Your task to perform on an android device: Search for razer kraken on costco, select the first entry, add it to the cart, then select checkout. Image 0: 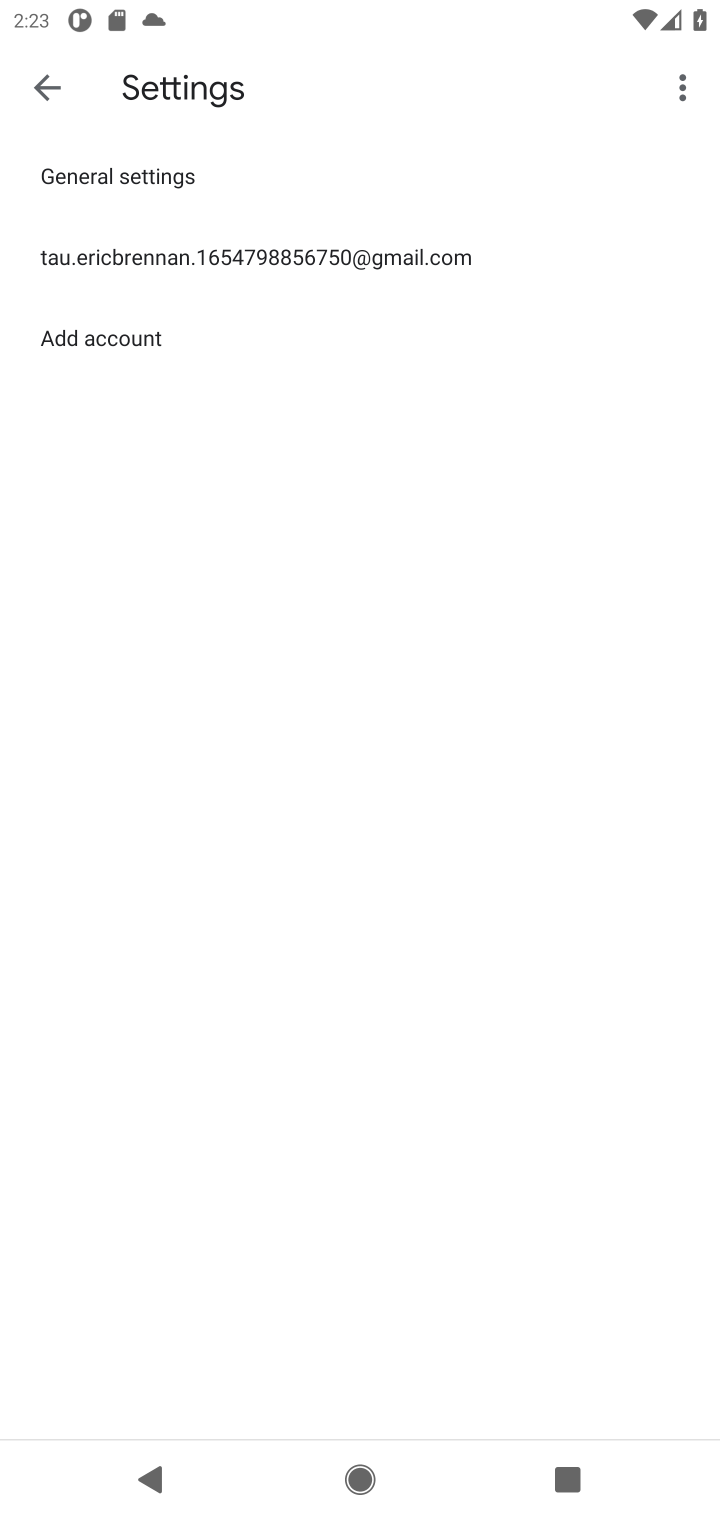
Step 0: press home button
Your task to perform on an android device: Search for razer kraken on costco, select the first entry, add it to the cart, then select checkout. Image 1: 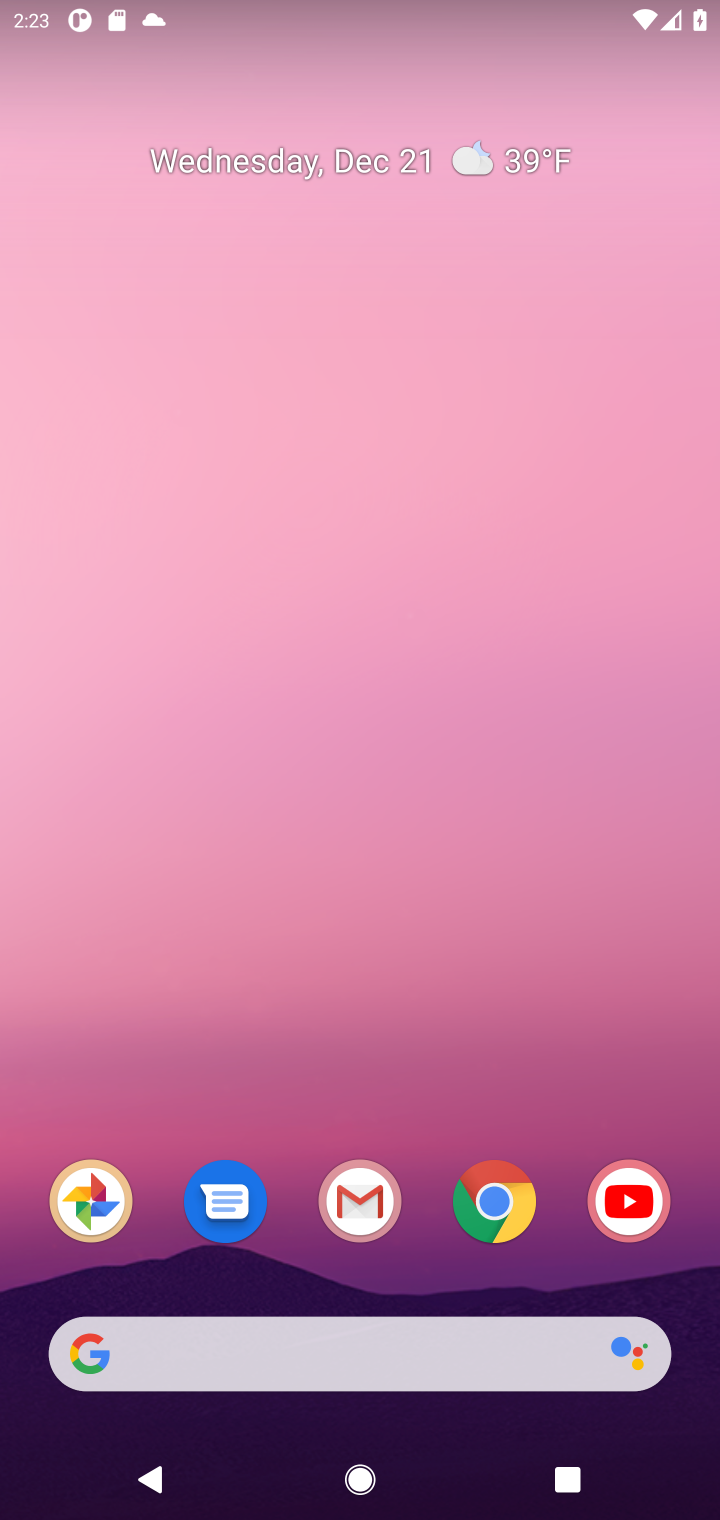
Step 1: click (499, 1209)
Your task to perform on an android device: Search for razer kraken on costco, select the first entry, add it to the cart, then select checkout. Image 2: 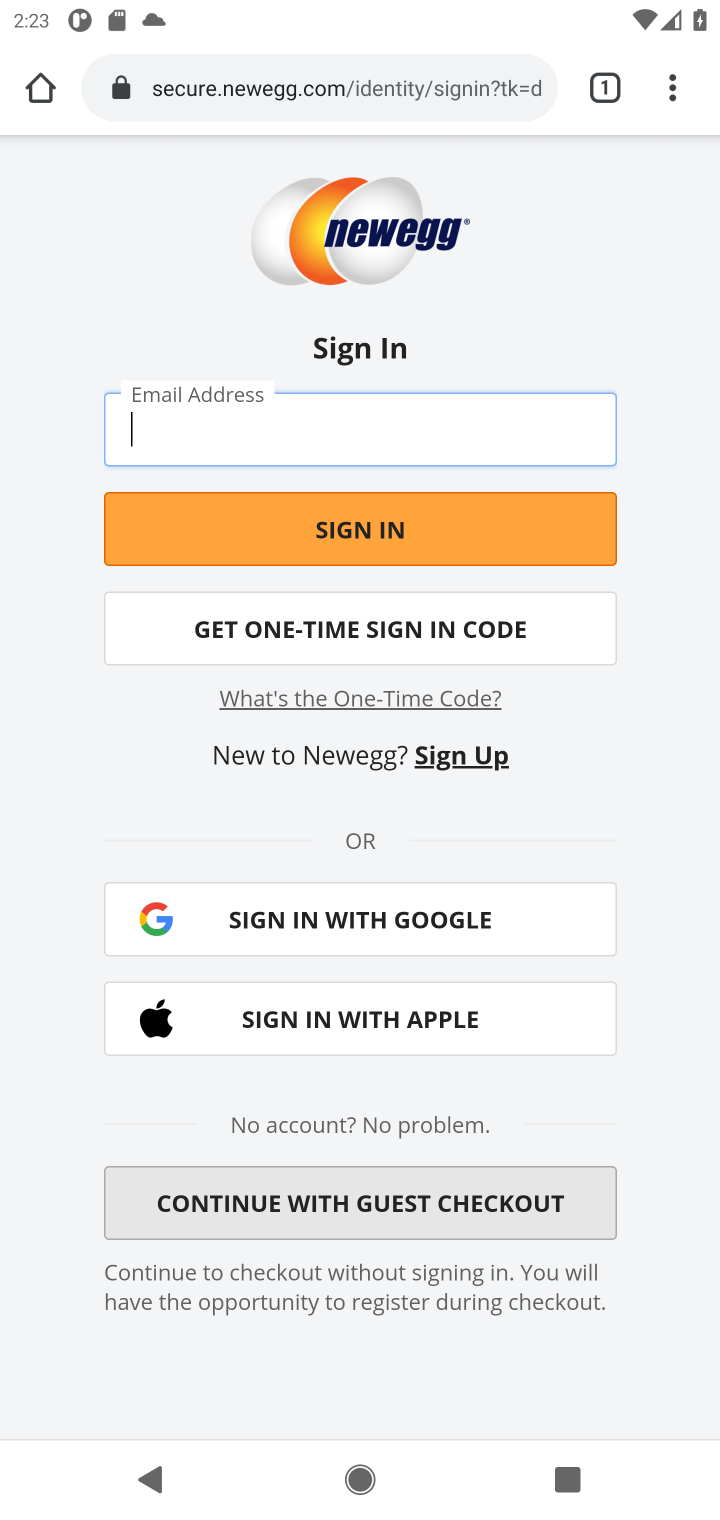
Step 2: click (274, 86)
Your task to perform on an android device: Search for razer kraken on costco, select the first entry, add it to the cart, then select checkout. Image 3: 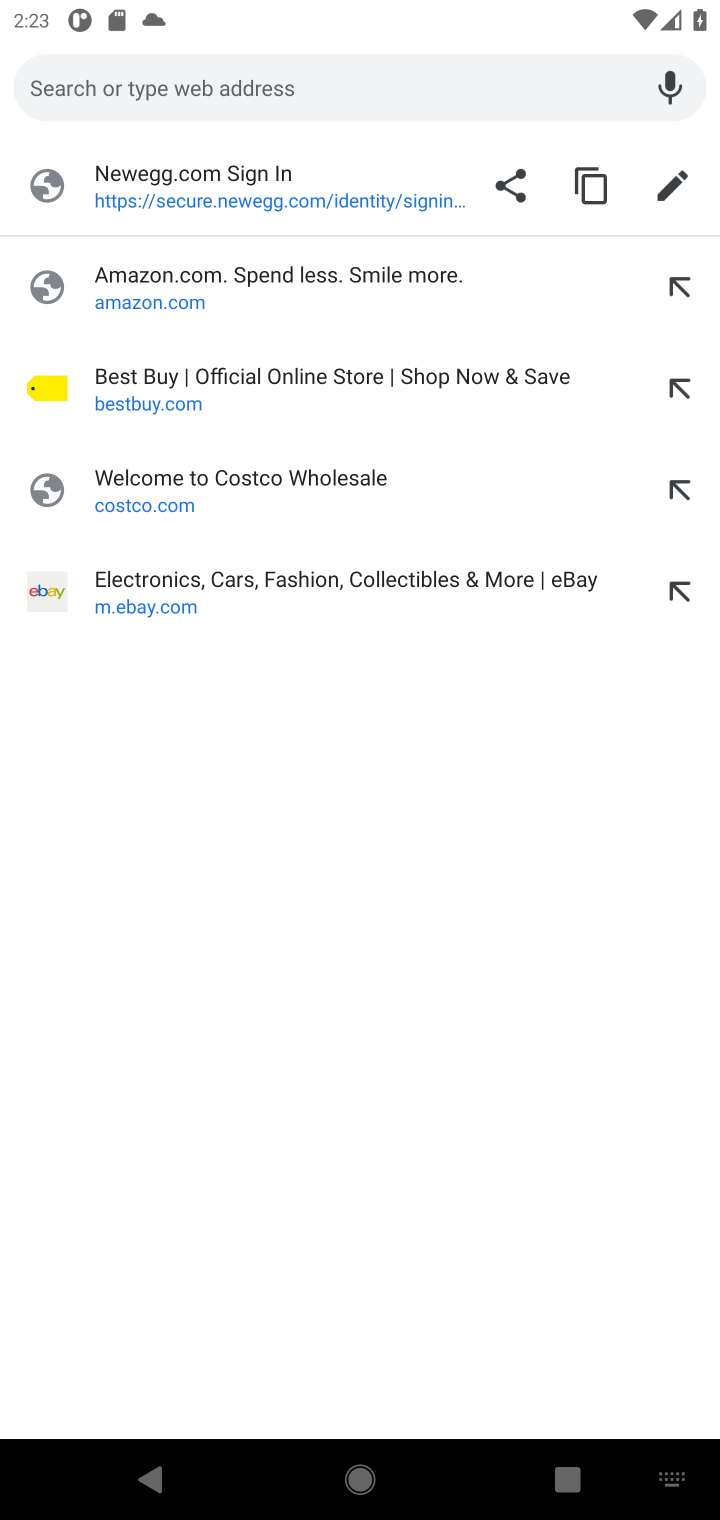
Step 3: click (145, 483)
Your task to perform on an android device: Search for razer kraken on costco, select the first entry, add it to the cart, then select checkout. Image 4: 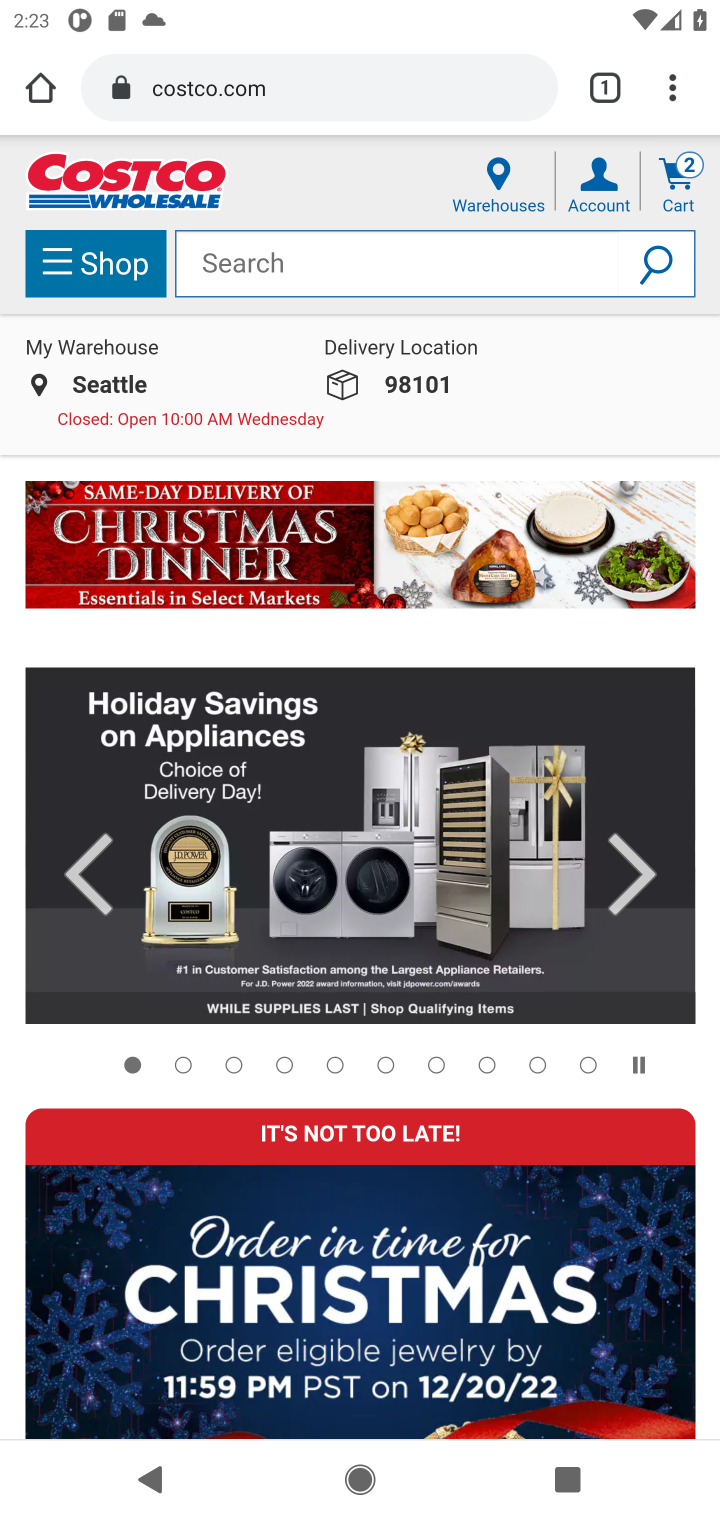
Step 4: click (255, 251)
Your task to perform on an android device: Search for razer kraken on costco, select the first entry, add it to the cart, then select checkout. Image 5: 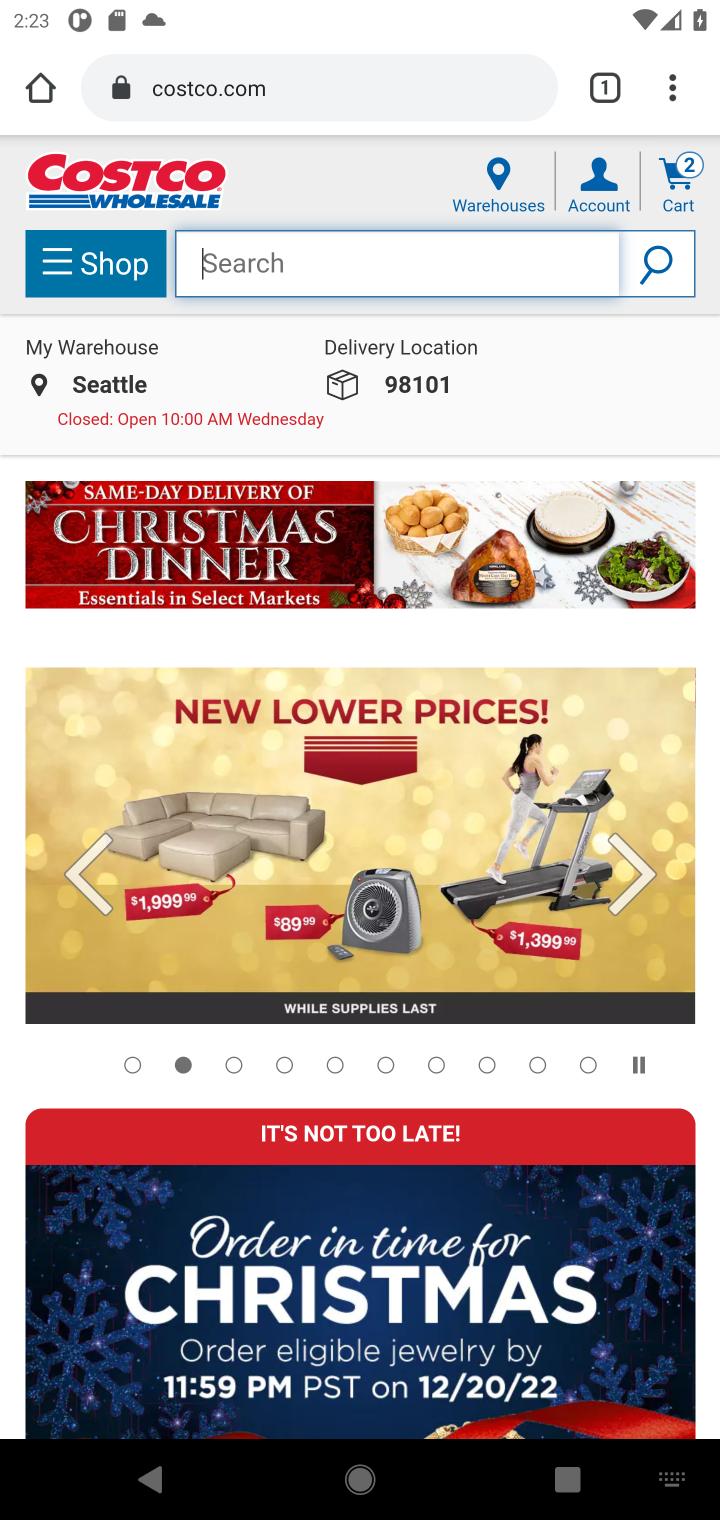
Step 5: type "razer kraken"
Your task to perform on an android device: Search for razer kraken on costco, select the first entry, add it to the cart, then select checkout. Image 6: 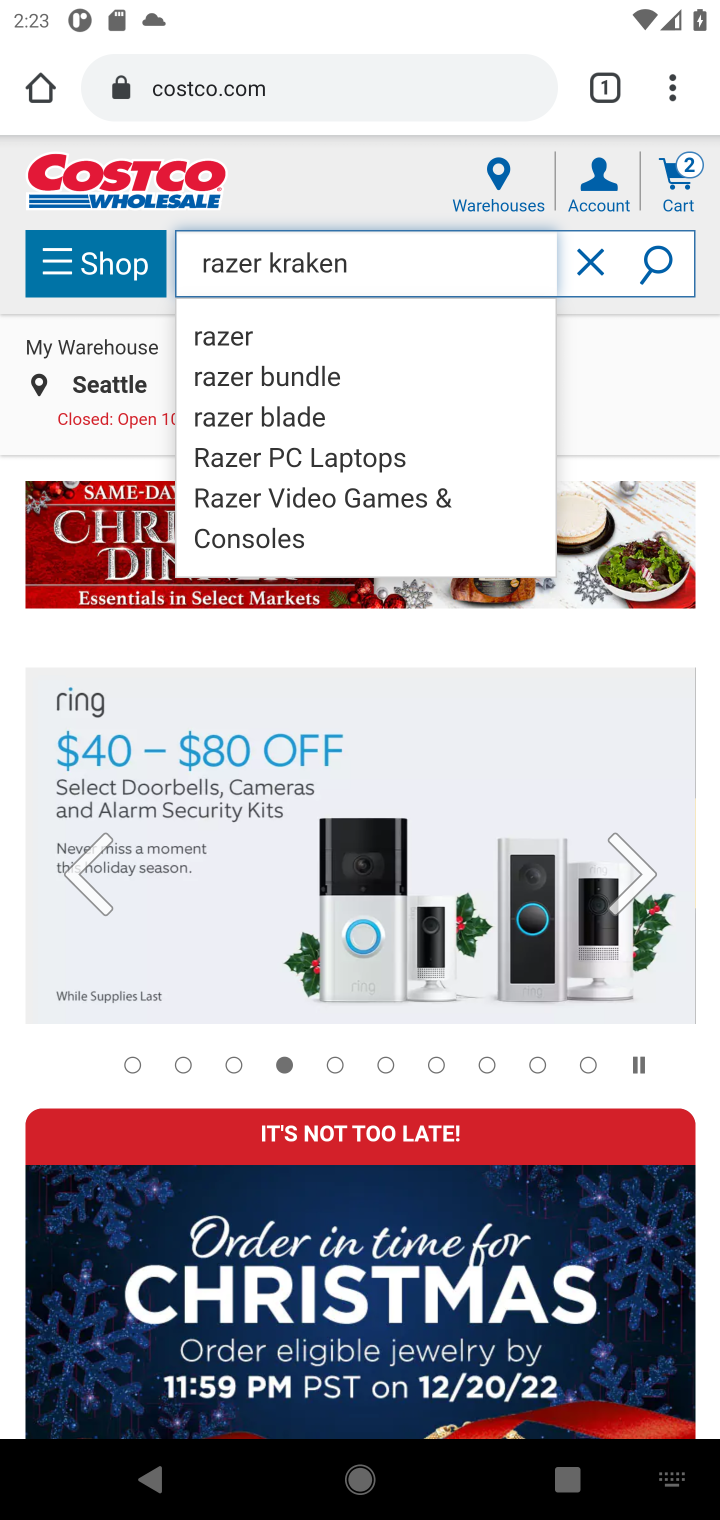
Step 6: click (647, 270)
Your task to perform on an android device: Search for razer kraken on costco, select the first entry, add it to the cart, then select checkout. Image 7: 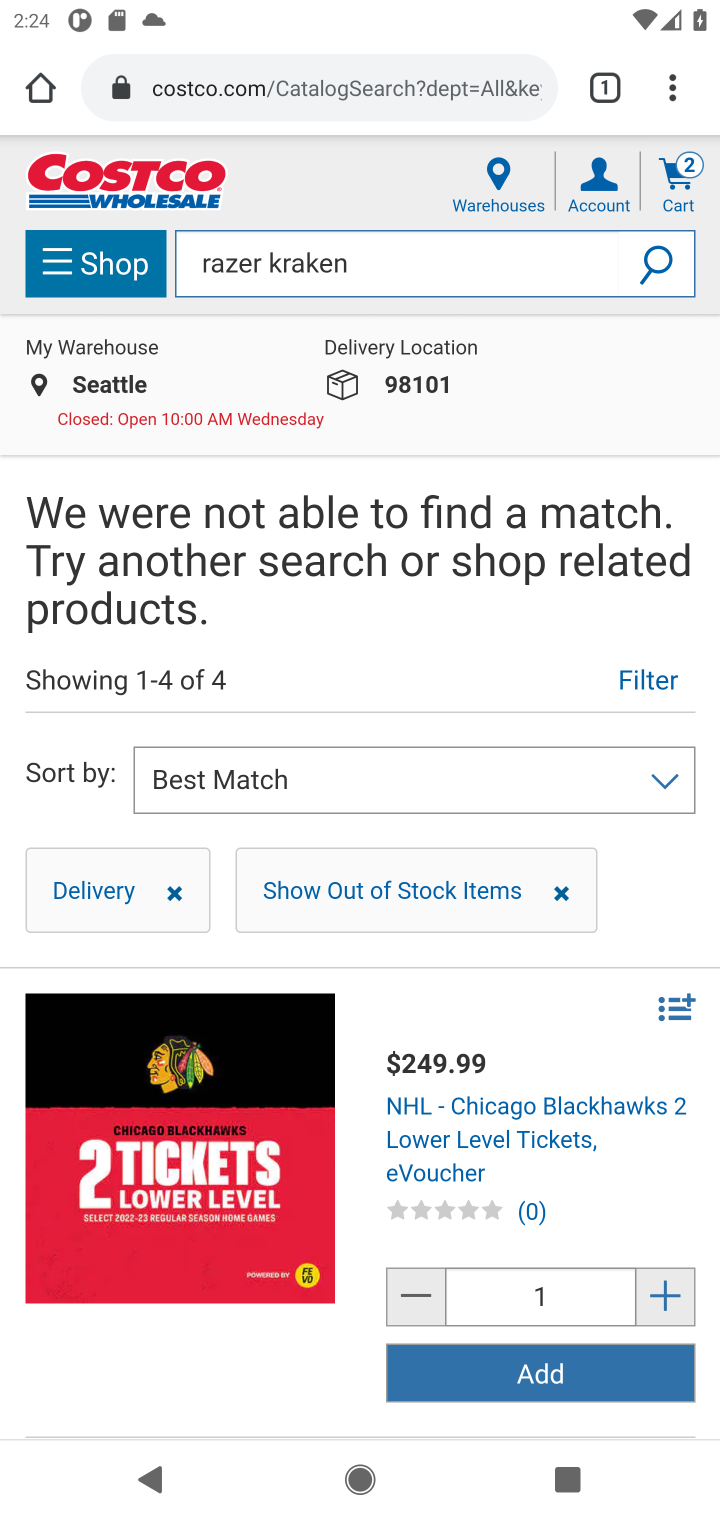
Step 7: task complete